Your task to perform on an android device: Open battery settings Image 0: 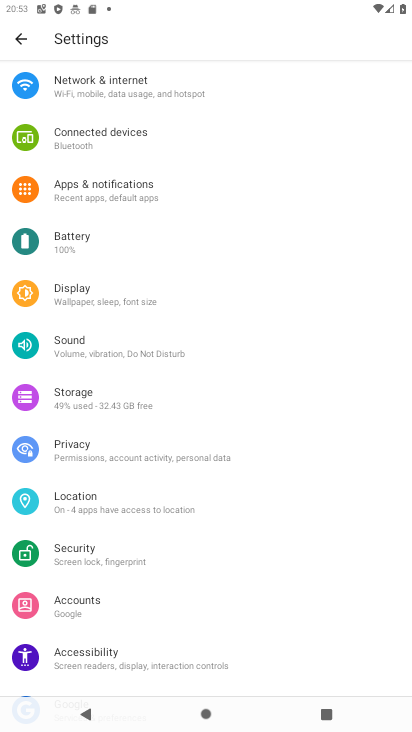
Step 0: press home button
Your task to perform on an android device: Open battery settings Image 1: 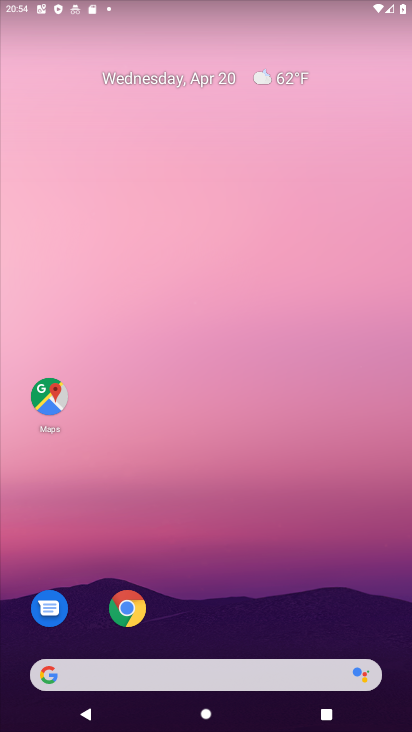
Step 1: drag from (252, 541) to (201, 41)
Your task to perform on an android device: Open battery settings Image 2: 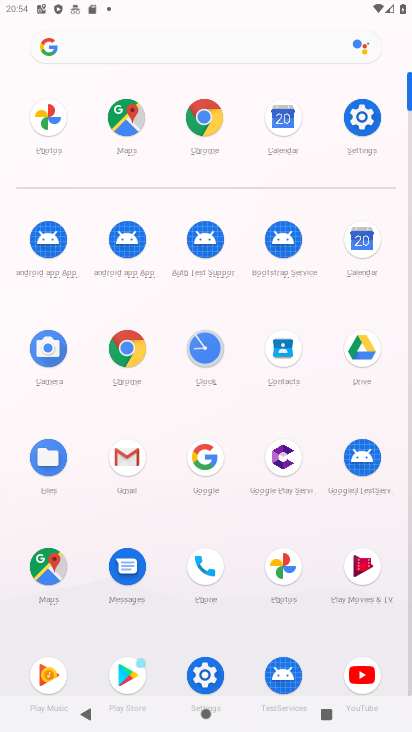
Step 2: click (197, 671)
Your task to perform on an android device: Open battery settings Image 3: 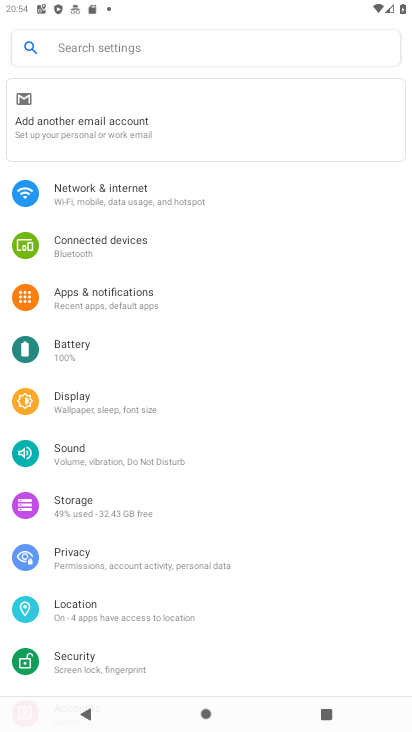
Step 3: drag from (243, 599) to (196, 318)
Your task to perform on an android device: Open battery settings Image 4: 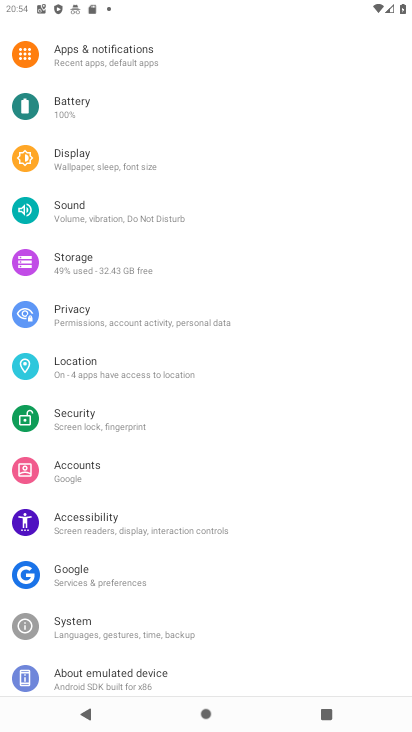
Step 4: drag from (178, 122) to (144, 542)
Your task to perform on an android device: Open battery settings Image 5: 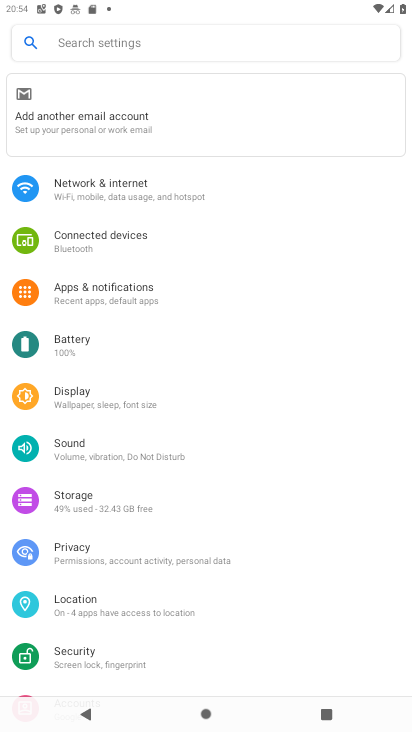
Step 5: click (74, 346)
Your task to perform on an android device: Open battery settings Image 6: 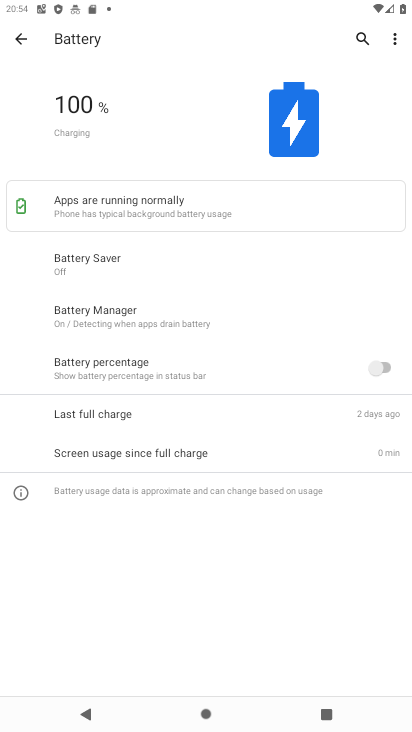
Step 6: task complete